Your task to perform on an android device: turn off javascript in the chrome app Image 0: 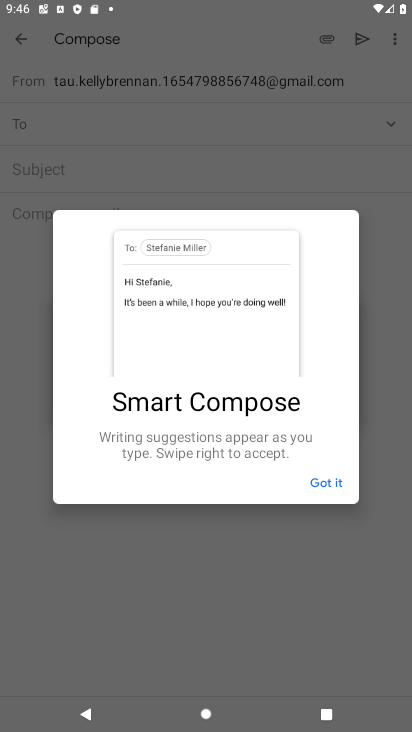
Step 0: click (326, 487)
Your task to perform on an android device: turn off javascript in the chrome app Image 1: 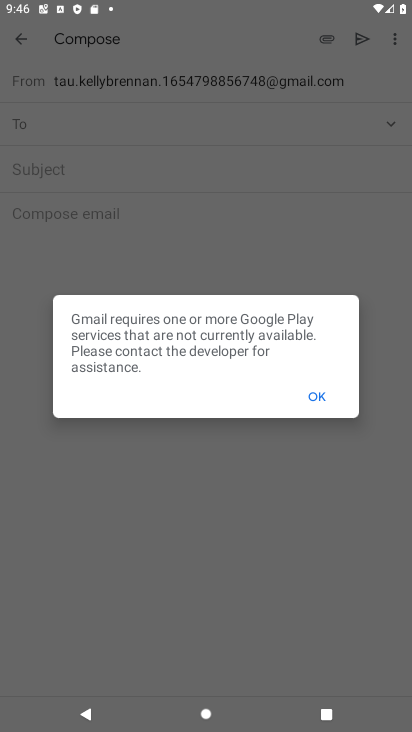
Step 1: click (322, 396)
Your task to perform on an android device: turn off javascript in the chrome app Image 2: 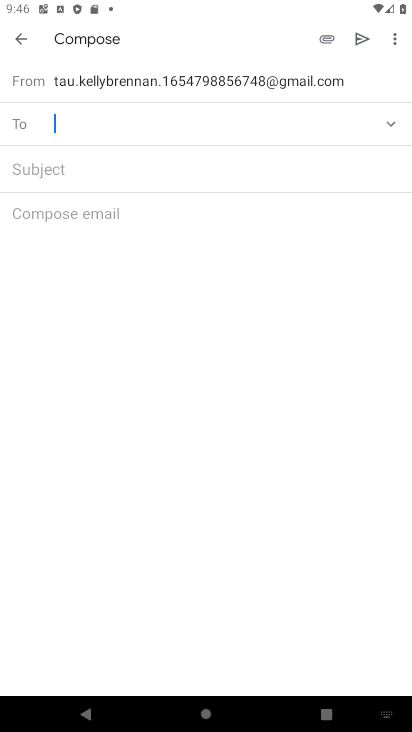
Step 2: press home button
Your task to perform on an android device: turn off javascript in the chrome app Image 3: 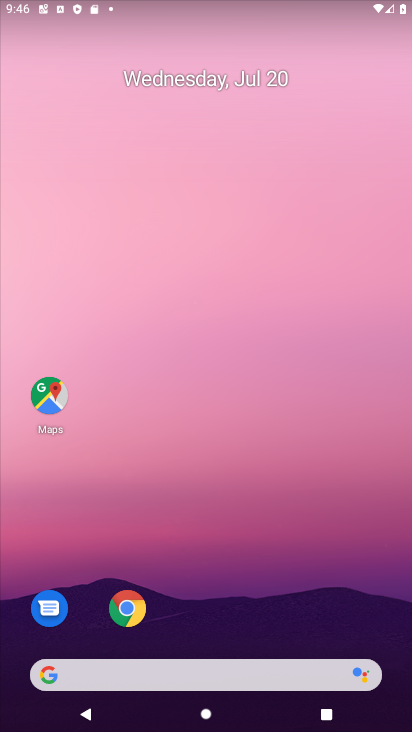
Step 3: drag from (212, 624) to (216, 174)
Your task to perform on an android device: turn off javascript in the chrome app Image 4: 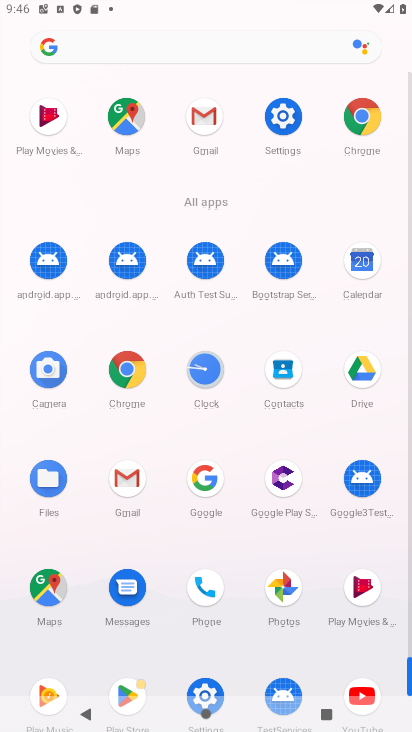
Step 4: click (116, 376)
Your task to perform on an android device: turn off javascript in the chrome app Image 5: 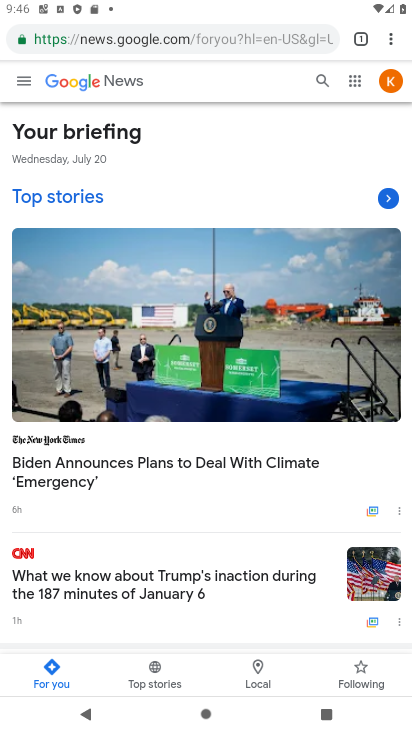
Step 5: click (394, 35)
Your task to perform on an android device: turn off javascript in the chrome app Image 6: 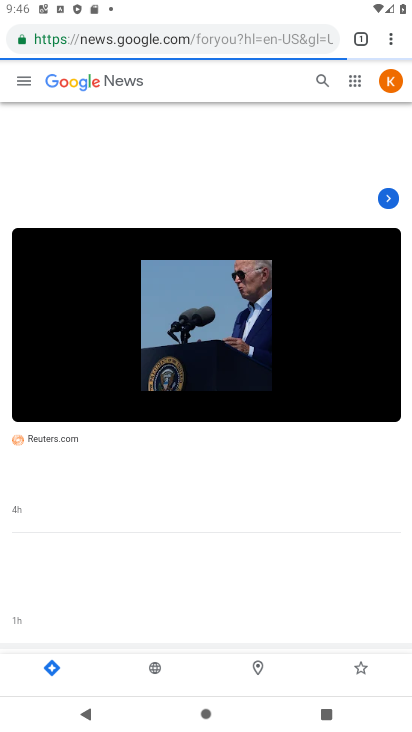
Step 6: click (391, 41)
Your task to perform on an android device: turn off javascript in the chrome app Image 7: 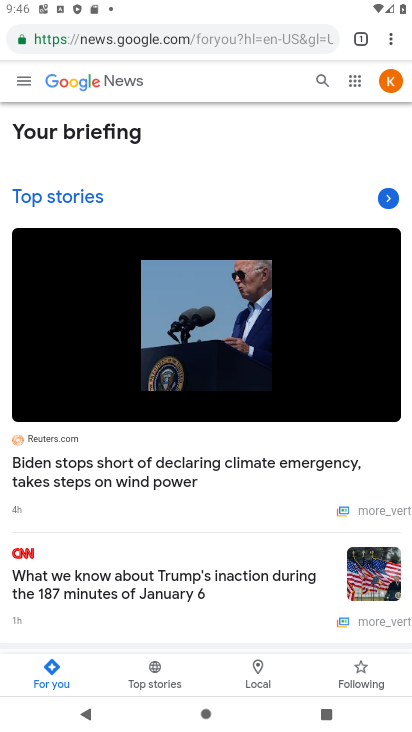
Step 7: click (391, 41)
Your task to perform on an android device: turn off javascript in the chrome app Image 8: 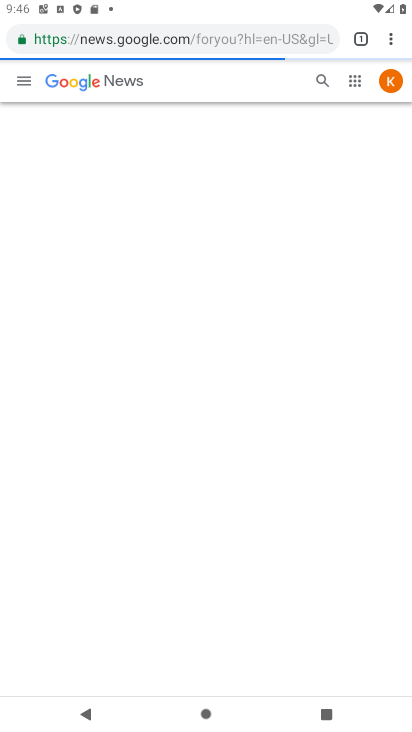
Step 8: click (391, 41)
Your task to perform on an android device: turn off javascript in the chrome app Image 9: 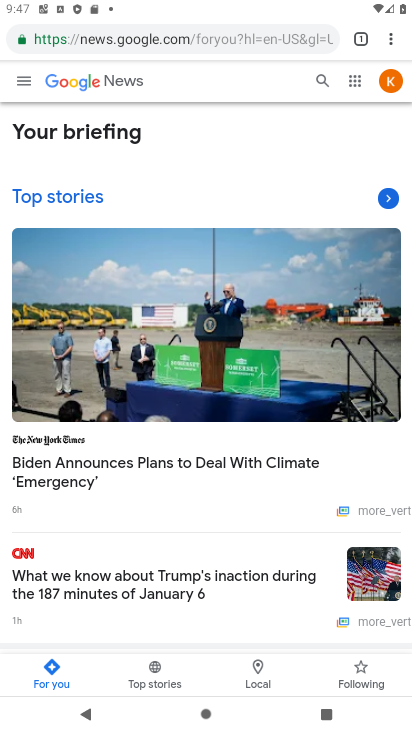
Step 9: click (393, 38)
Your task to perform on an android device: turn off javascript in the chrome app Image 10: 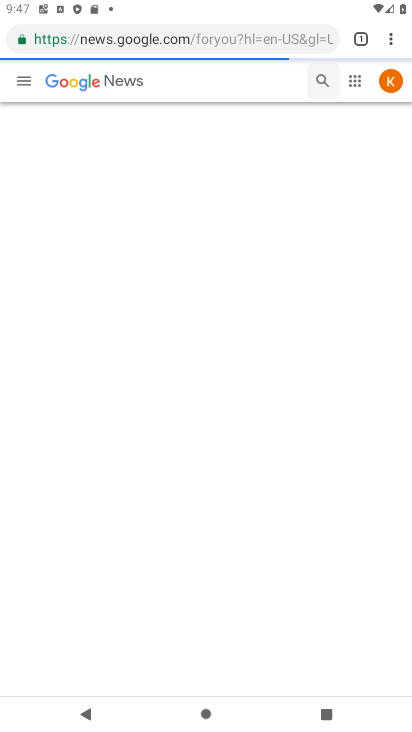
Step 10: click (393, 38)
Your task to perform on an android device: turn off javascript in the chrome app Image 11: 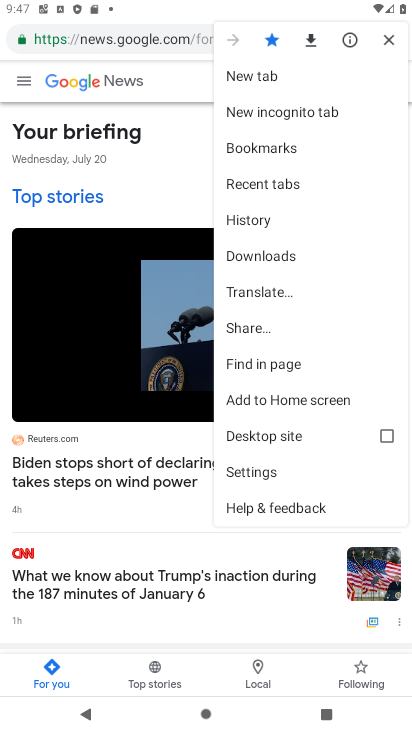
Step 11: click (269, 472)
Your task to perform on an android device: turn off javascript in the chrome app Image 12: 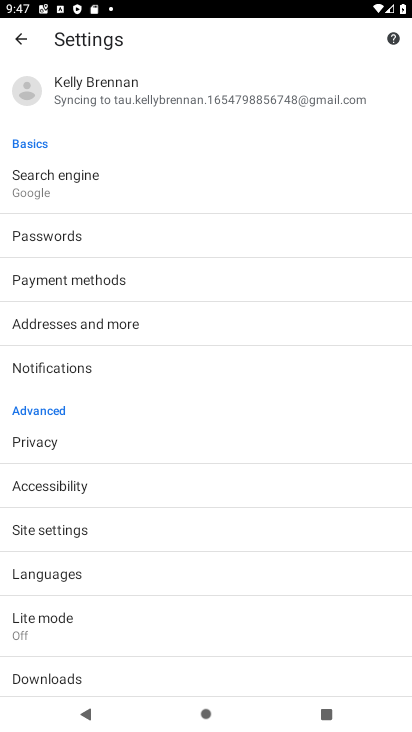
Step 12: click (91, 530)
Your task to perform on an android device: turn off javascript in the chrome app Image 13: 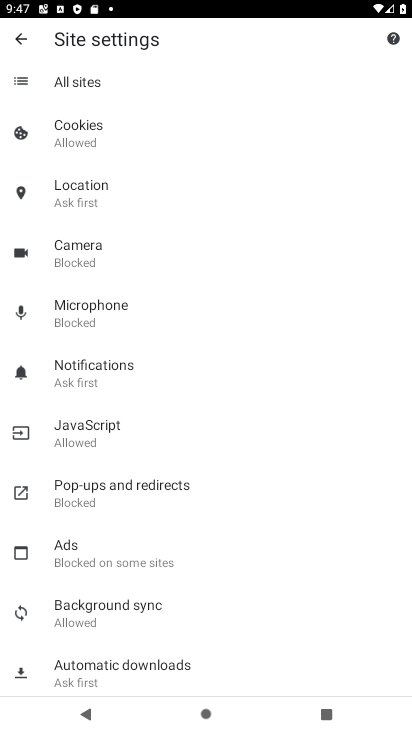
Step 13: click (125, 431)
Your task to perform on an android device: turn off javascript in the chrome app Image 14: 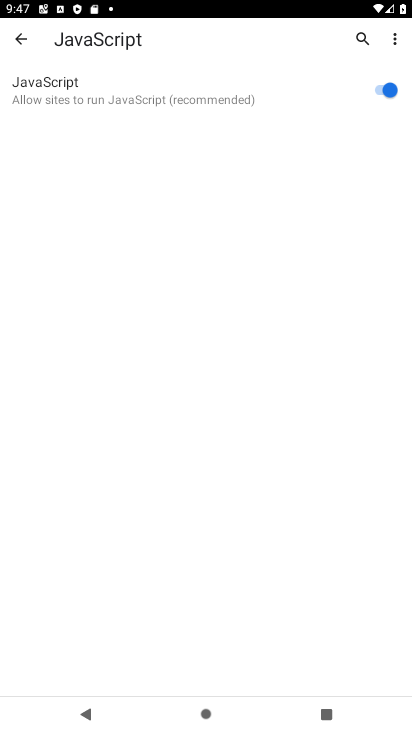
Step 14: click (379, 93)
Your task to perform on an android device: turn off javascript in the chrome app Image 15: 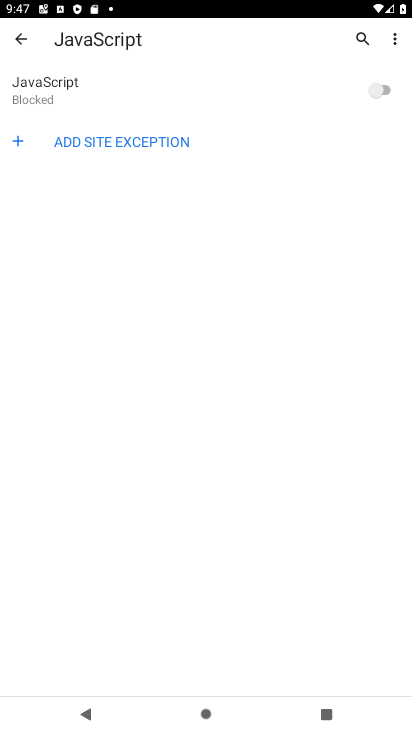
Step 15: task complete